Your task to perform on an android device: Go to accessibility settings Image 0: 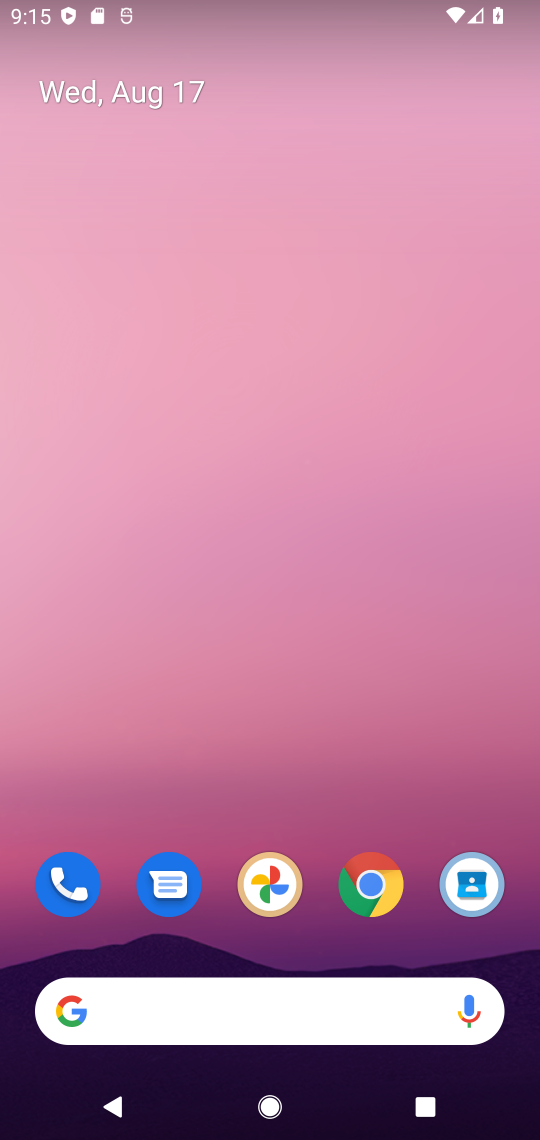
Step 0: drag from (280, 796) to (246, 71)
Your task to perform on an android device: Go to accessibility settings Image 1: 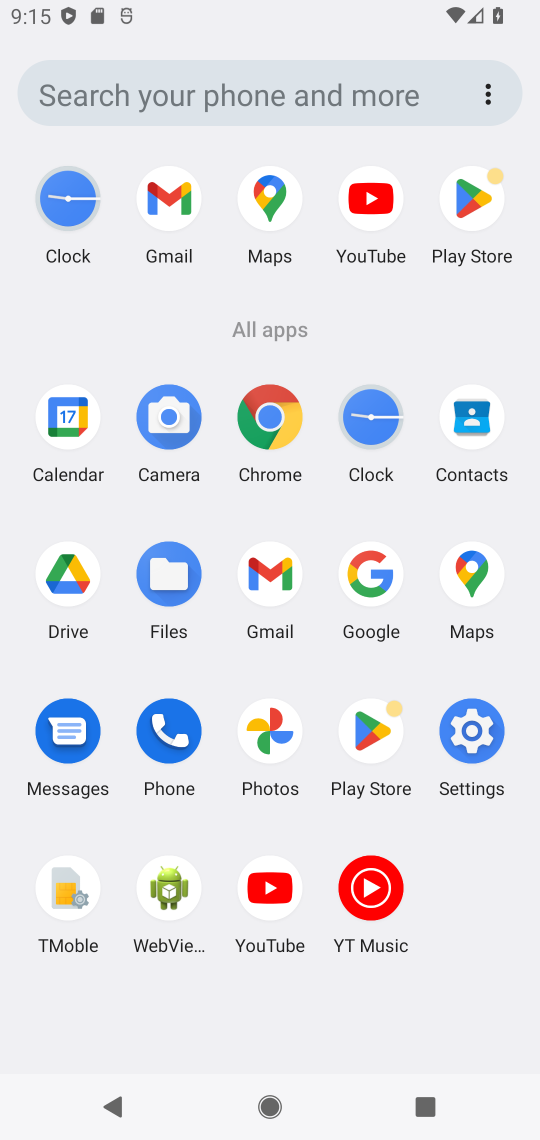
Step 1: click (460, 707)
Your task to perform on an android device: Go to accessibility settings Image 2: 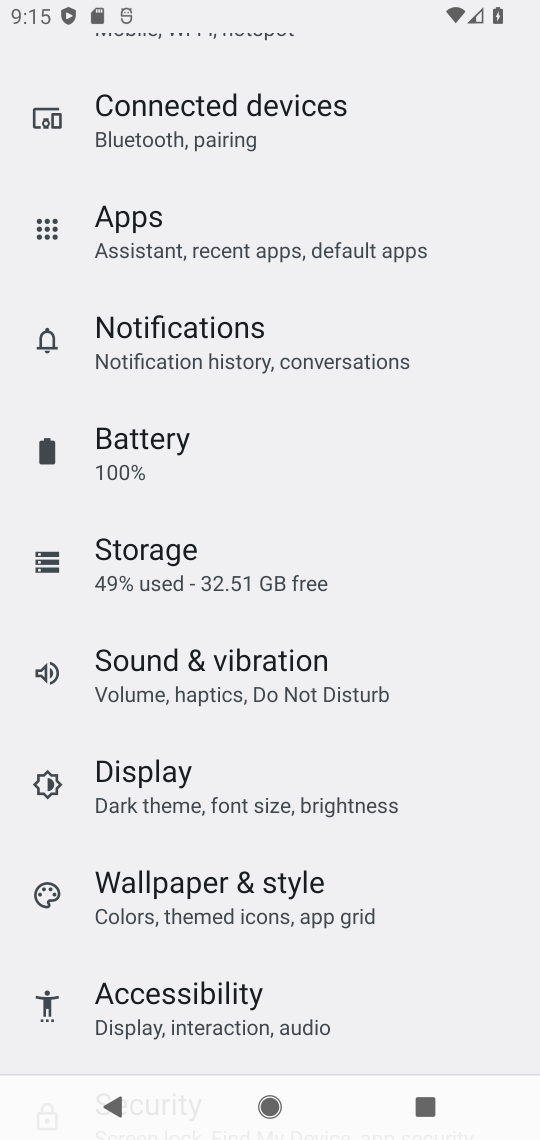
Step 2: drag from (283, 926) to (270, 467)
Your task to perform on an android device: Go to accessibility settings Image 3: 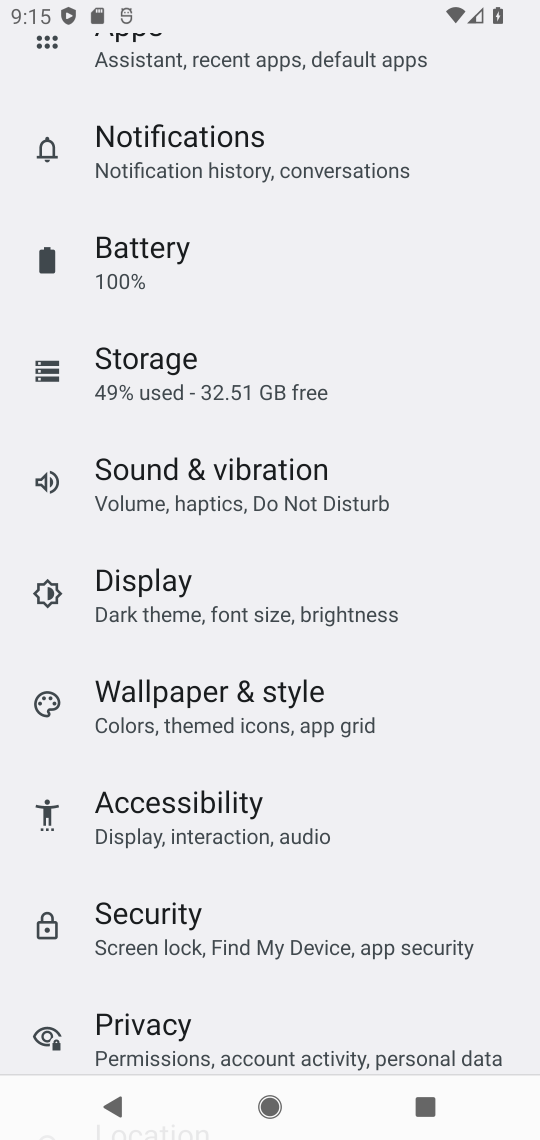
Step 3: click (238, 784)
Your task to perform on an android device: Go to accessibility settings Image 4: 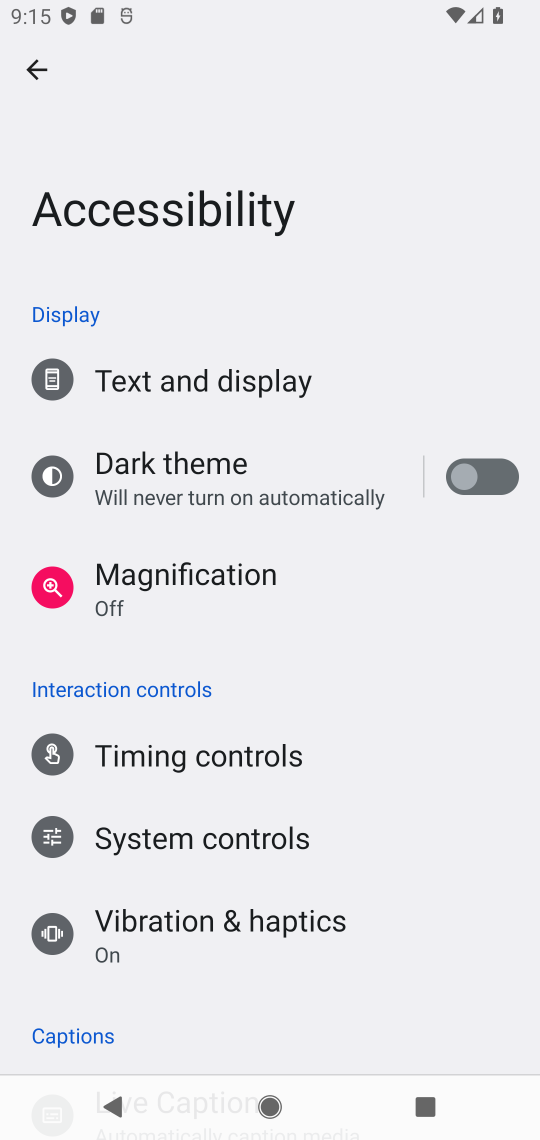
Step 4: task complete